Your task to perform on an android device: turn on javascript in the chrome app Image 0: 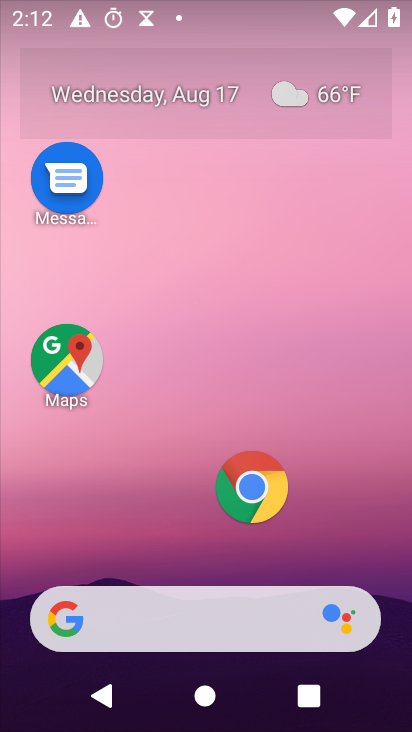
Step 0: press home button
Your task to perform on an android device: turn on javascript in the chrome app Image 1: 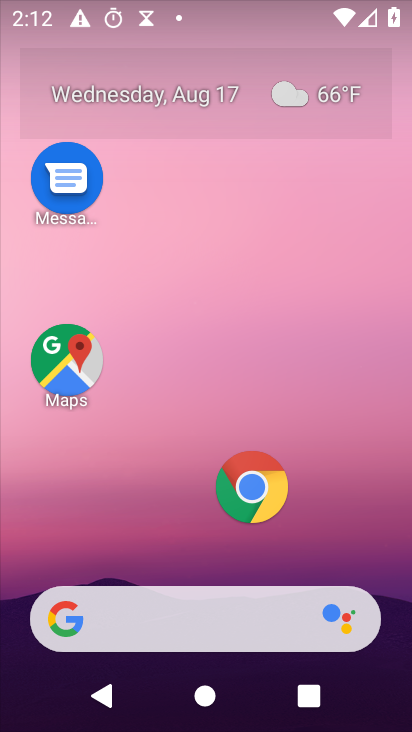
Step 1: click (255, 495)
Your task to perform on an android device: turn on javascript in the chrome app Image 2: 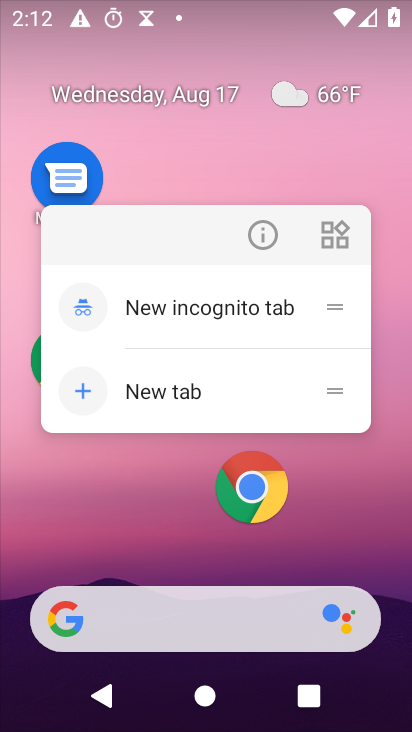
Step 2: click (282, 484)
Your task to perform on an android device: turn on javascript in the chrome app Image 3: 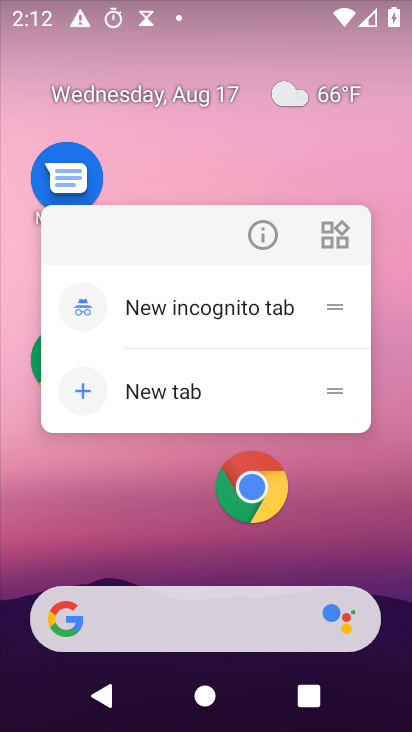
Step 3: click (283, 484)
Your task to perform on an android device: turn on javascript in the chrome app Image 4: 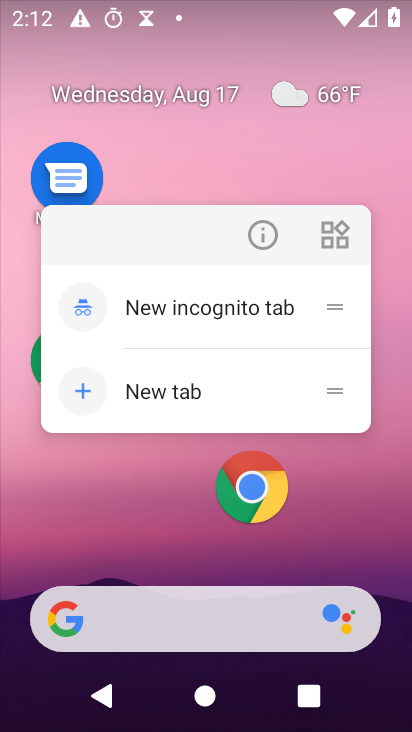
Step 4: click (252, 496)
Your task to perform on an android device: turn on javascript in the chrome app Image 5: 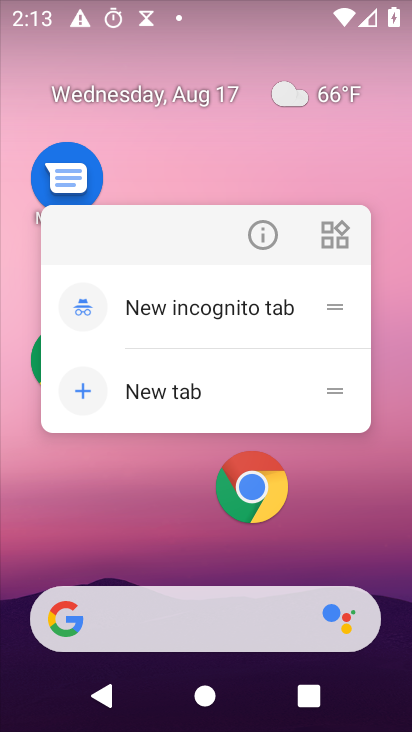
Step 5: click (255, 494)
Your task to perform on an android device: turn on javascript in the chrome app Image 6: 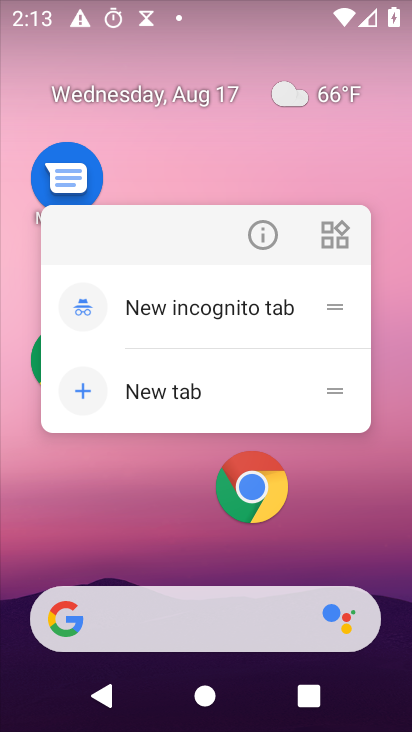
Step 6: click (279, 493)
Your task to perform on an android device: turn on javascript in the chrome app Image 7: 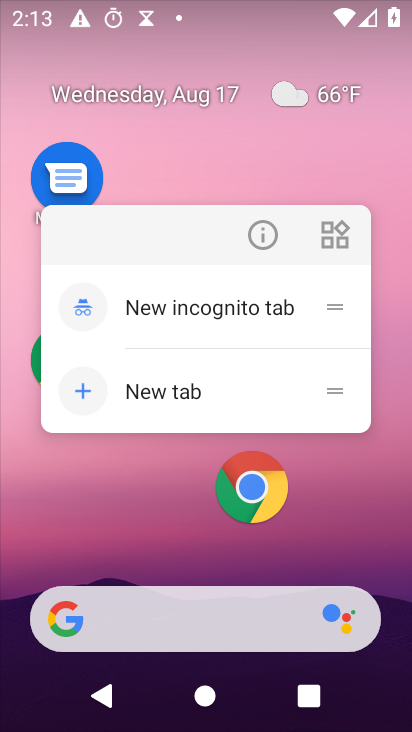
Step 7: click (279, 493)
Your task to perform on an android device: turn on javascript in the chrome app Image 8: 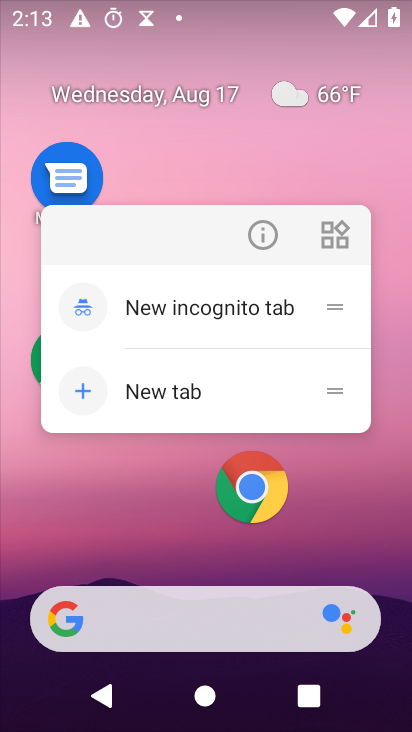
Step 8: click (235, 494)
Your task to perform on an android device: turn on javascript in the chrome app Image 9: 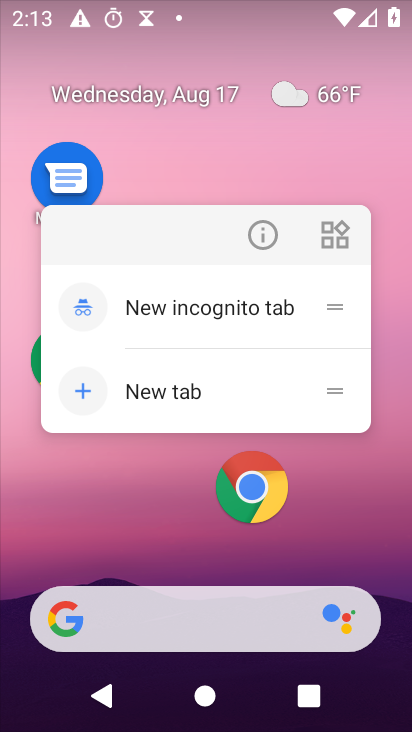
Step 9: click (235, 494)
Your task to perform on an android device: turn on javascript in the chrome app Image 10: 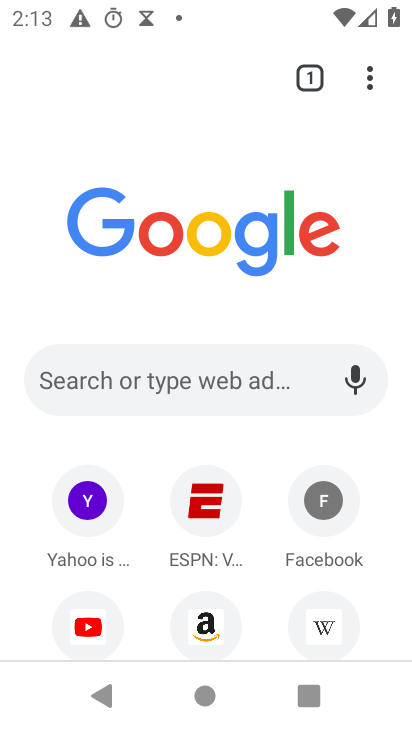
Step 10: drag from (376, 87) to (160, 554)
Your task to perform on an android device: turn on javascript in the chrome app Image 11: 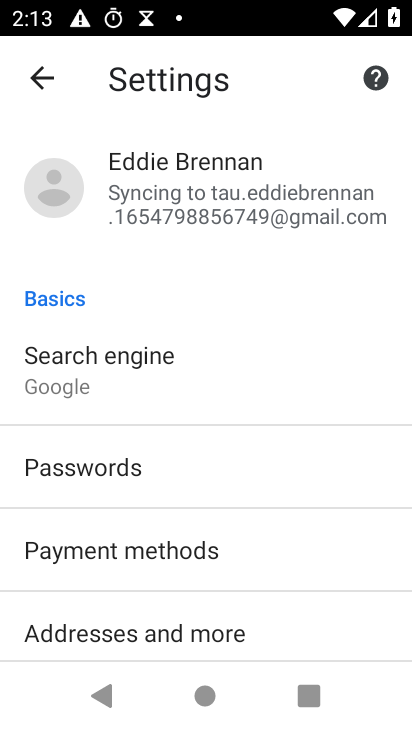
Step 11: drag from (329, 623) to (364, 25)
Your task to perform on an android device: turn on javascript in the chrome app Image 12: 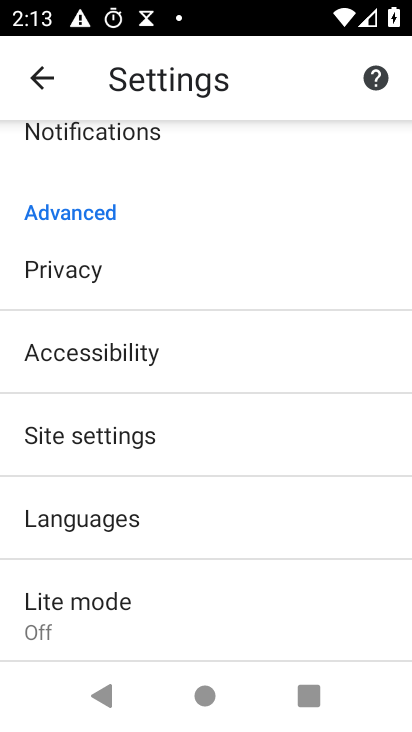
Step 12: click (84, 439)
Your task to perform on an android device: turn on javascript in the chrome app Image 13: 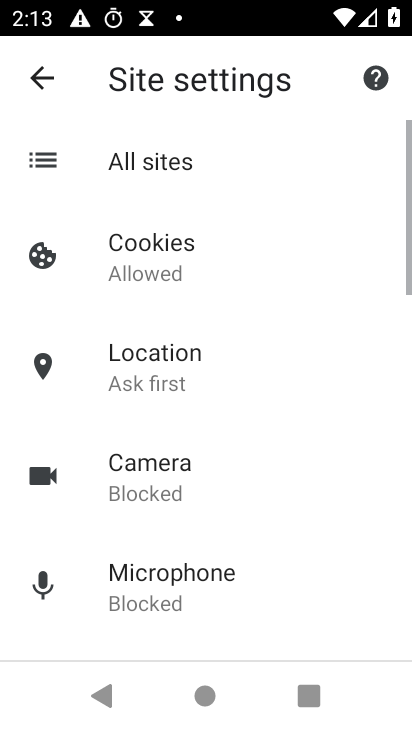
Step 13: drag from (311, 588) to (321, 207)
Your task to perform on an android device: turn on javascript in the chrome app Image 14: 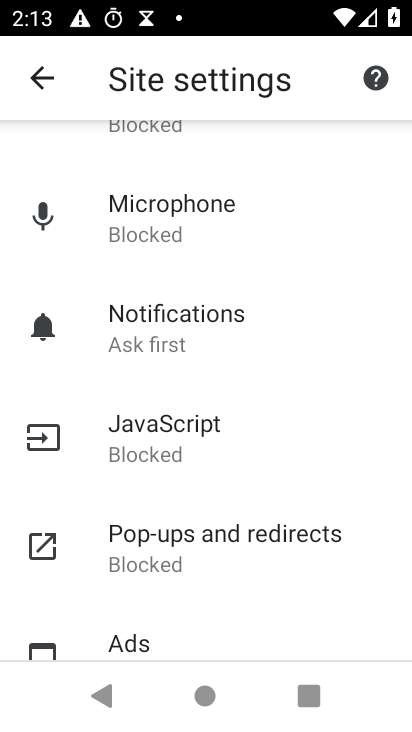
Step 14: click (142, 455)
Your task to perform on an android device: turn on javascript in the chrome app Image 15: 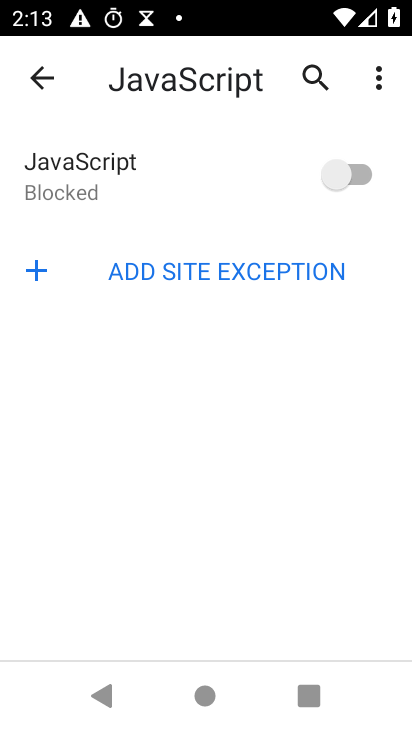
Step 15: click (344, 182)
Your task to perform on an android device: turn on javascript in the chrome app Image 16: 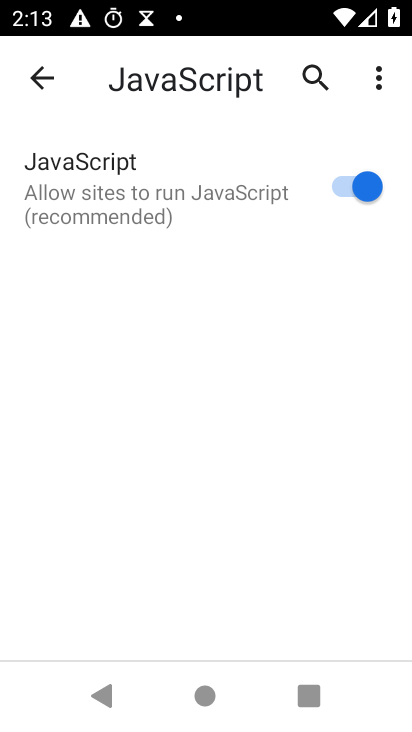
Step 16: task complete